Your task to perform on an android device: turn on notifications settings in the gmail app Image 0: 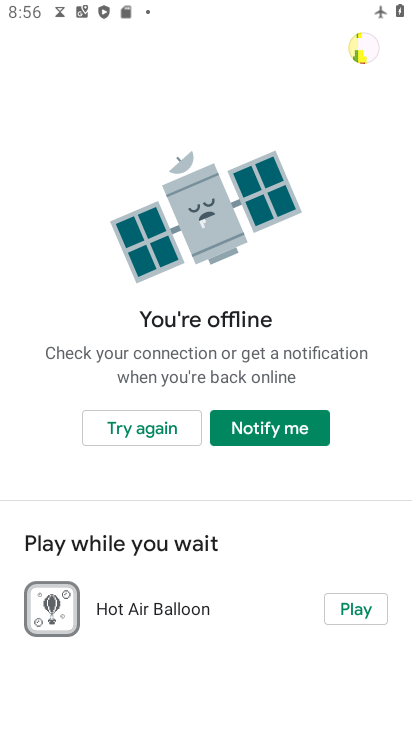
Step 0: press home button
Your task to perform on an android device: turn on notifications settings in the gmail app Image 1: 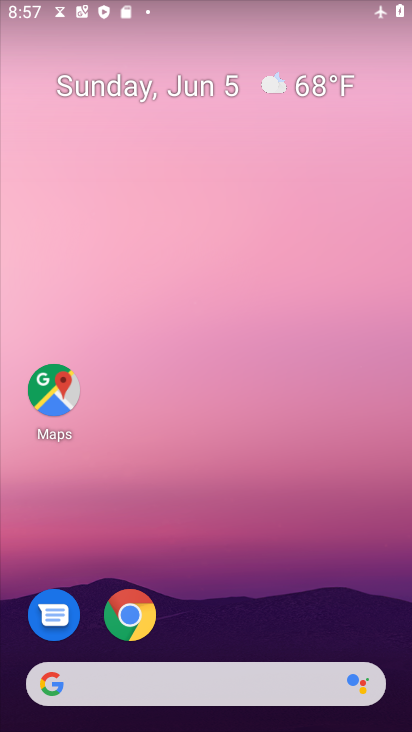
Step 1: drag from (210, 671) to (243, 66)
Your task to perform on an android device: turn on notifications settings in the gmail app Image 2: 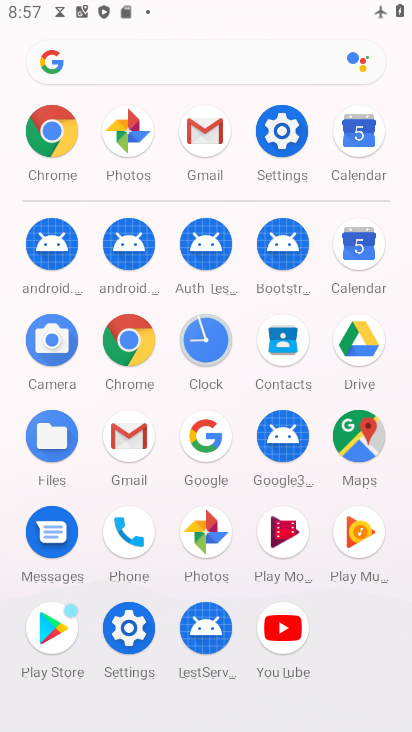
Step 2: click (120, 452)
Your task to perform on an android device: turn on notifications settings in the gmail app Image 3: 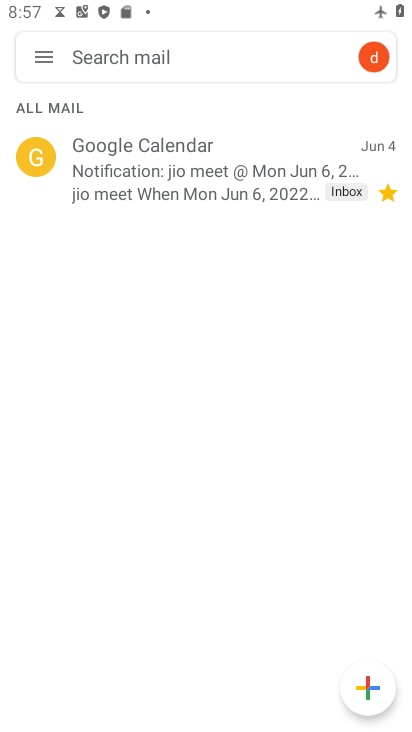
Step 3: click (44, 52)
Your task to perform on an android device: turn on notifications settings in the gmail app Image 4: 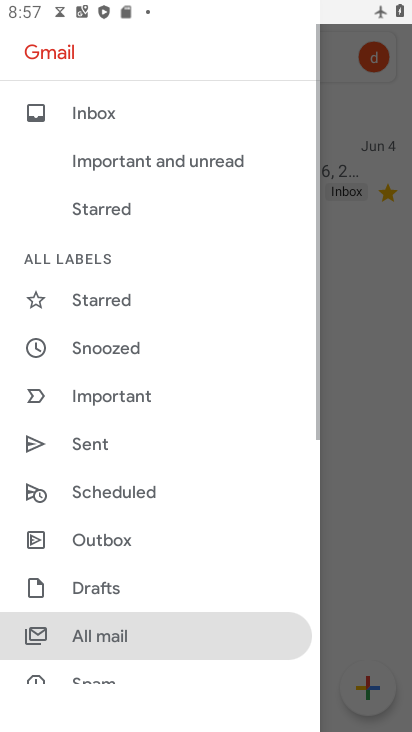
Step 4: drag from (91, 584) to (92, 173)
Your task to perform on an android device: turn on notifications settings in the gmail app Image 5: 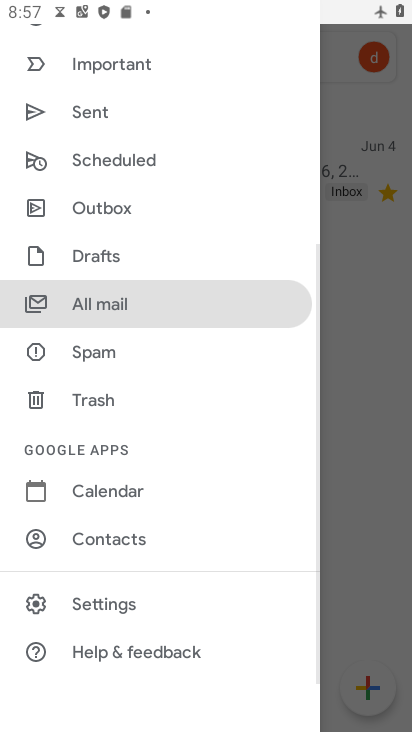
Step 5: click (83, 597)
Your task to perform on an android device: turn on notifications settings in the gmail app Image 6: 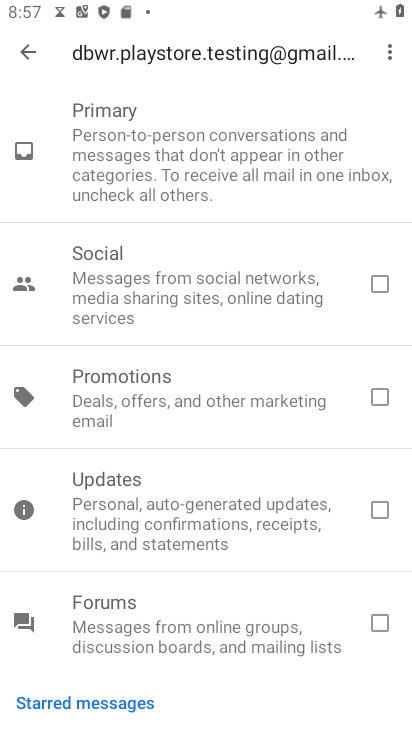
Step 6: click (26, 57)
Your task to perform on an android device: turn on notifications settings in the gmail app Image 7: 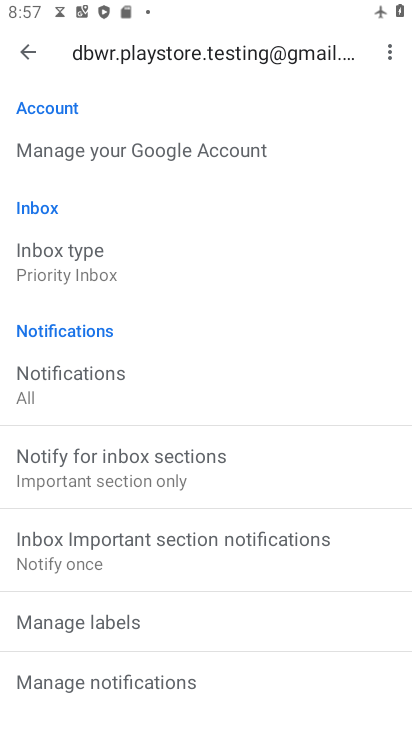
Step 7: click (161, 691)
Your task to perform on an android device: turn on notifications settings in the gmail app Image 8: 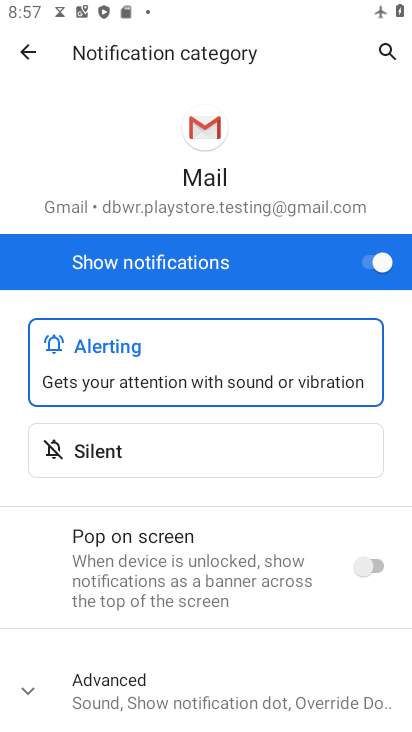
Step 8: task complete